Your task to perform on an android device: Open the Play Movies app and select the watchlist tab. Image 0: 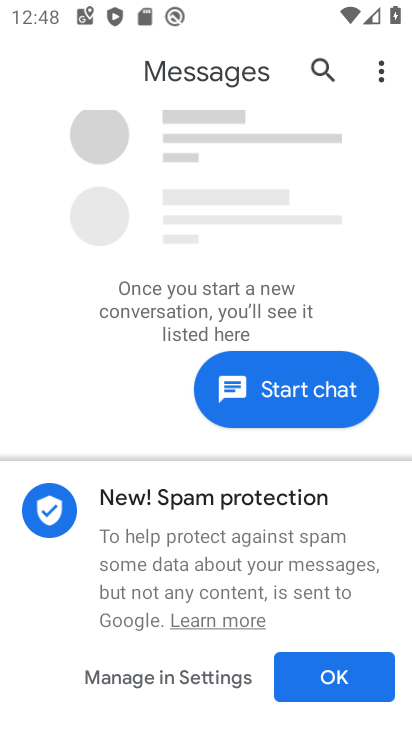
Step 0: press home button
Your task to perform on an android device: Open the Play Movies app and select the watchlist tab. Image 1: 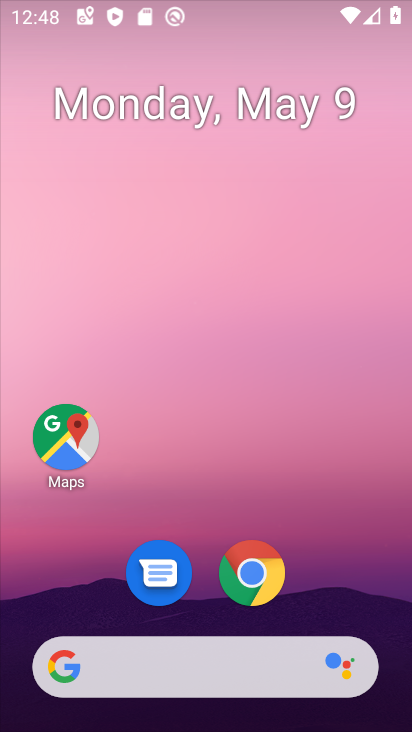
Step 1: drag from (322, 532) to (85, 103)
Your task to perform on an android device: Open the Play Movies app and select the watchlist tab. Image 2: 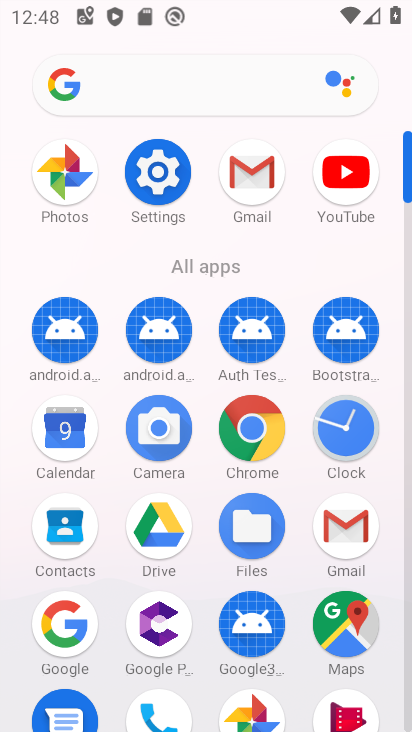
Step 2: drag from (291, 563) to (306, 217)
Your task to perform on an android device: Open the Play Movies app and select the watchlist tab. Image 3: 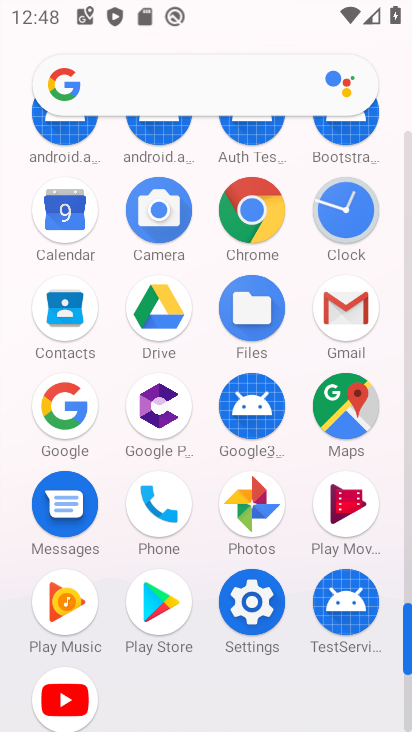
Step 3: click (335, 519)
Your task to perform on an android device: Open the Play Movies app and select the watchlist tab. Image 4: 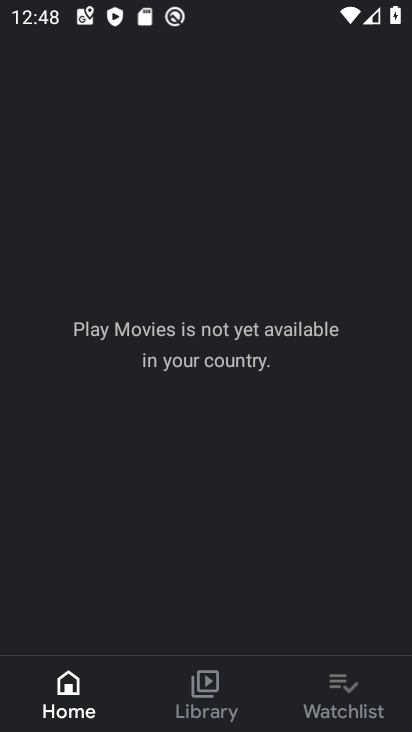
Step 4: click (334, 686)
Your task to perform on an android device: Open the Play Movies app and select the watchlist tab. Image 5: 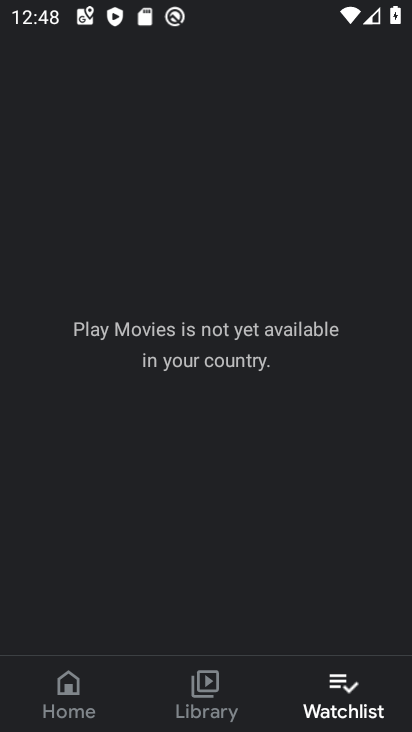
Step 5: task complete